Your task to perform on an android device: star an email in the gmail app Image 0: 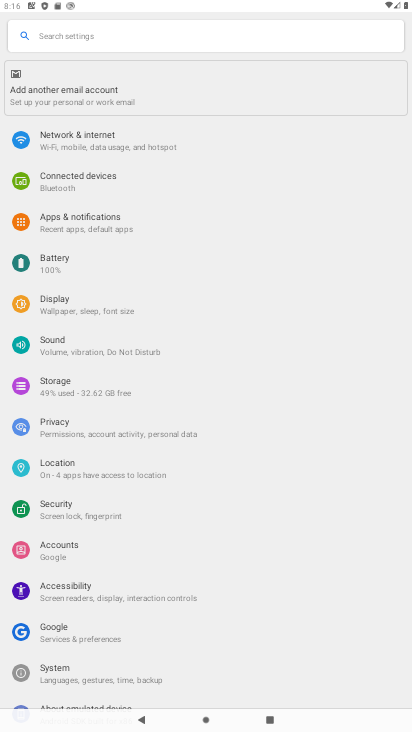
Step 0: press home button
Your task to perform on an android device: star an email in the gmail app Image 1: 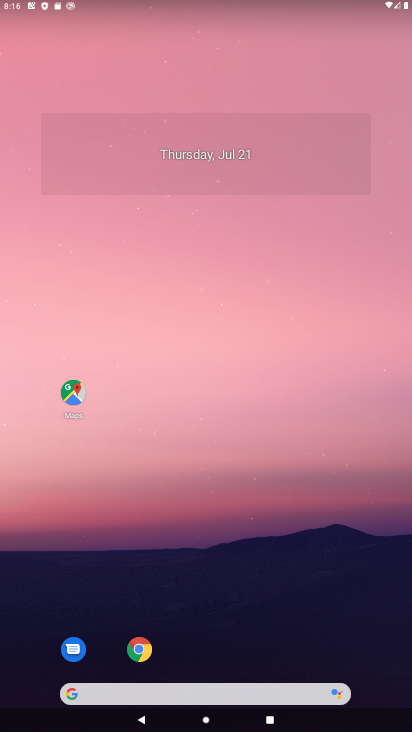
Step 1: drag from (201, 644) to (195, 1)
Your task to perform on an android device: star an email in the gmail app Image 2: 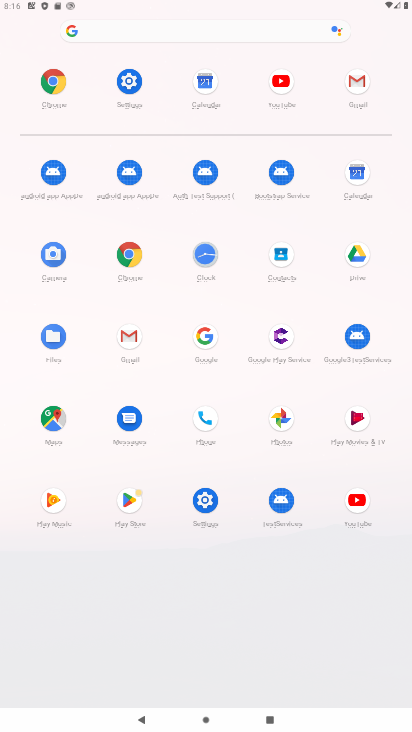
Step 2: click (127, 343)
Your task to perform on an android device: star an email in the gmail app Image 3: 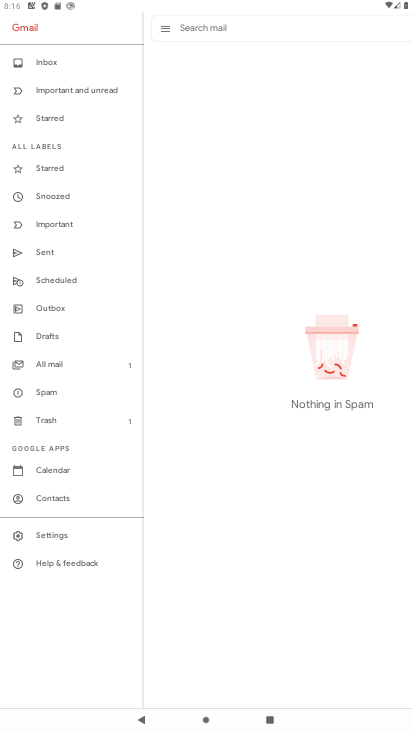
Step 3: drag from (53, 75) to (66, 225)
Your task to perform on an android device: star an email in the gmail app Image 4: 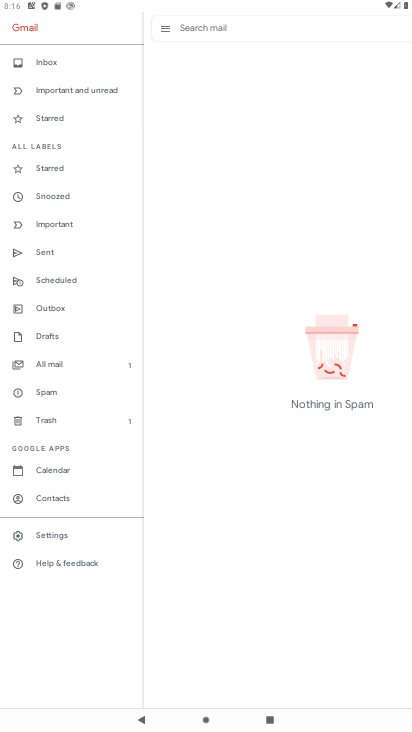
Step 4: click (48, 60)
Your task to perform on an android device: star an email in the gmail app Image 5: 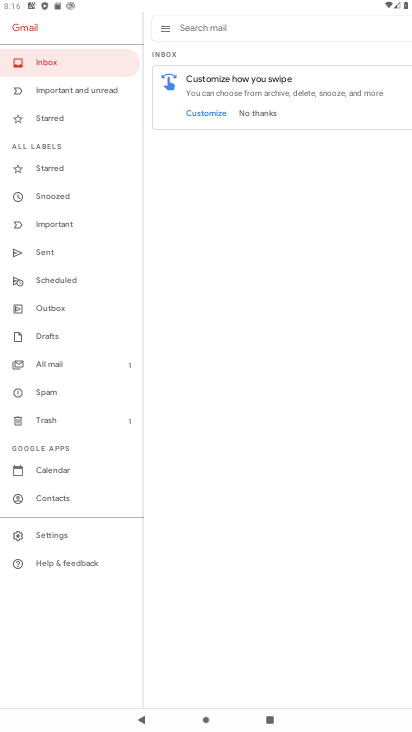
Step 5: task complete